Your task to perform on an android device: Go to privacy settings Image 0: 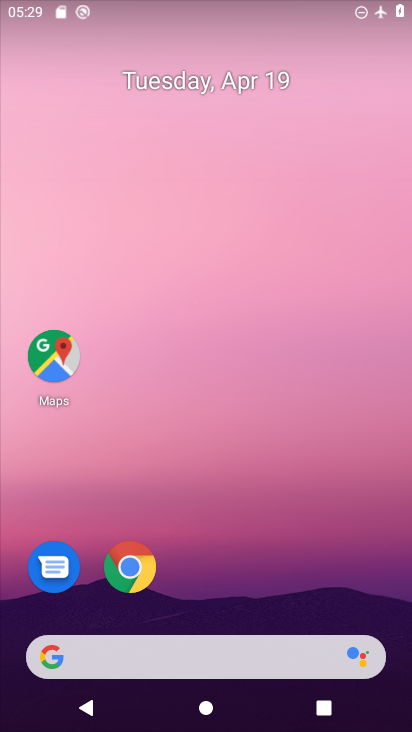
Step 0: drag from (274, 624) to (309, 2)
Your task to perform on an android device: Go to privacy settings Image 1: 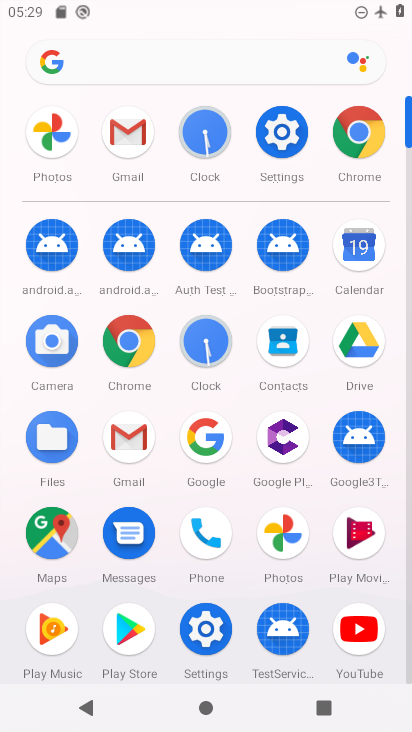
Step 1: click (210, 613)
Your task to perform on an android device: Go to privacy settings Image 2: 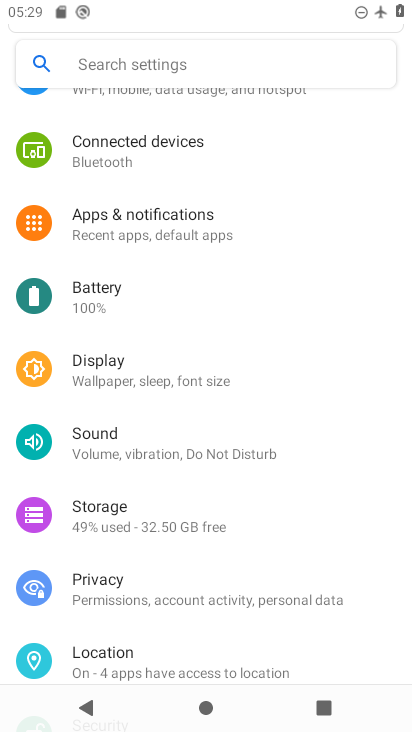
Step 2: click (173, 595)
Your task to perform on an android device: Go to privacy settings Image 3: 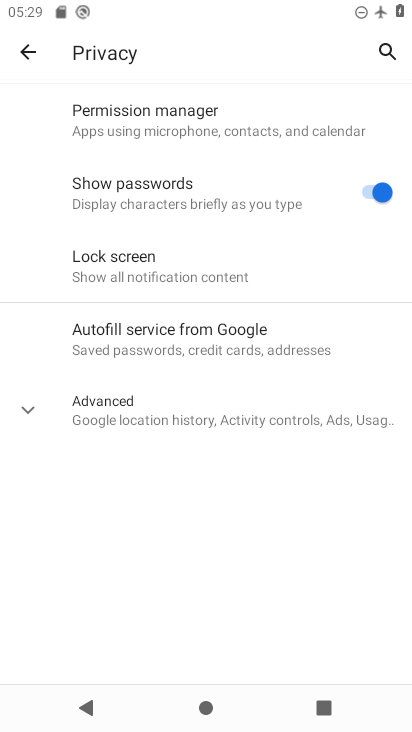
Step 3: task complete